Your task to perform on an android device: turn on translation in the chrome app Image 0: 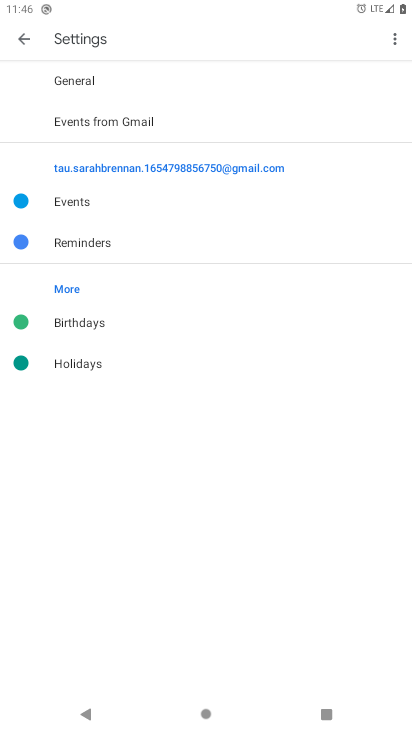
Step 0: press home button
Your task to perform on an android device: turn on translation in the chrome app Image 1: 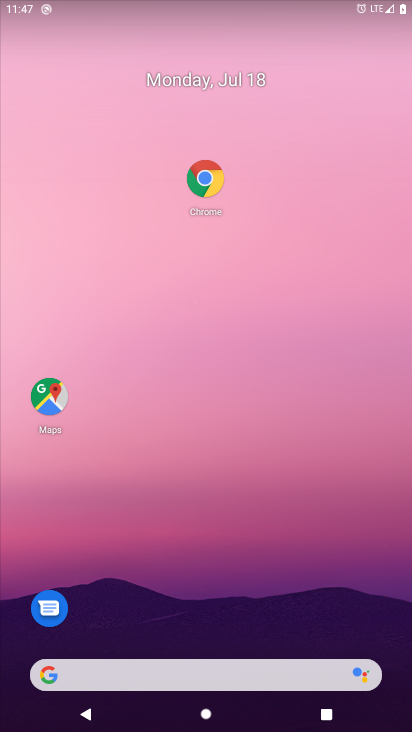
Step 1: click (196, 188)
Your task to perform on an android device: turn on translation in the chrome app Image 2: 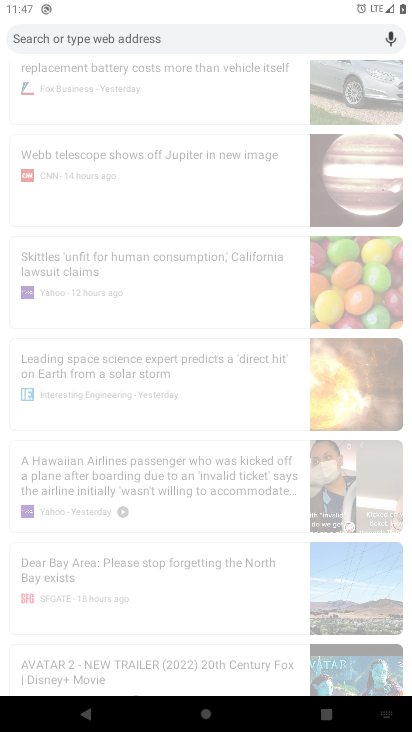
Step 2: click (73, 26)
Your task to perform on an android device: turn on translation in the chrome app Image 3: 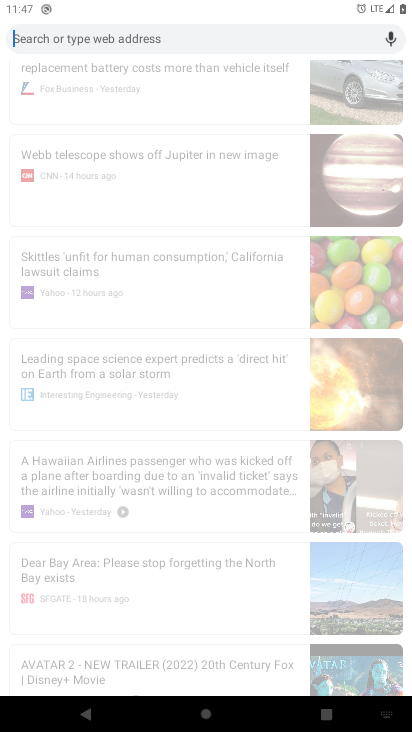
Step 3: click (74, 35)
Your task to perform on an android device: turn on translation in the chrome app Image 4: 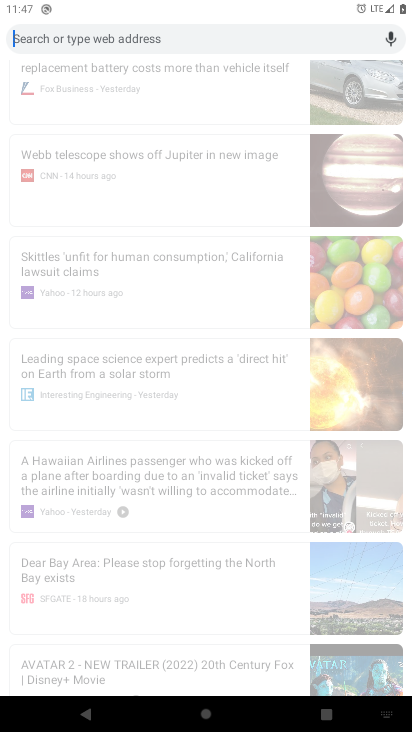
Step 4: task complete